Your task to perform on an android device: Open the phone app and click the voicemail tab. Image 0: 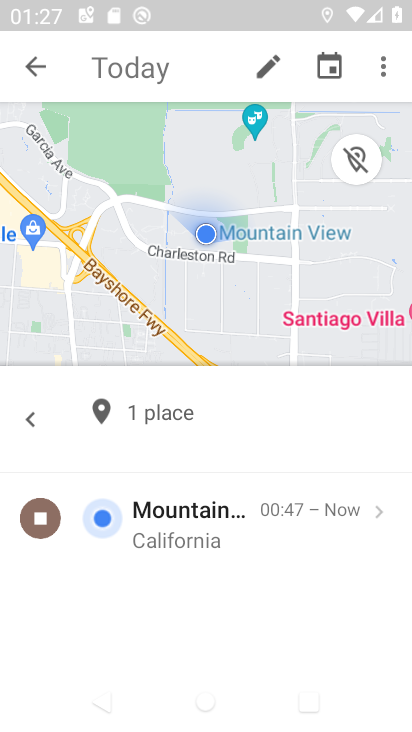
Step 0: press home button
Your task to perform on an android device: Open the phone app and click the voicemail tab. Image 1: 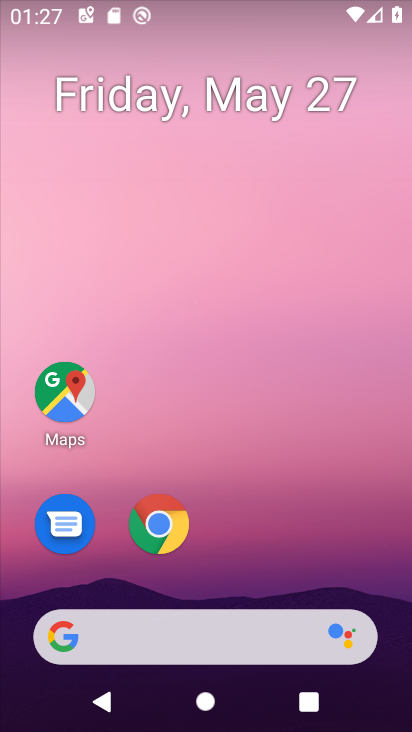
Step 1: drag from (240, 510) to (274, 0)
Your task to perform on an android device: Open the phone app and click the voicemail tab. Image 2: 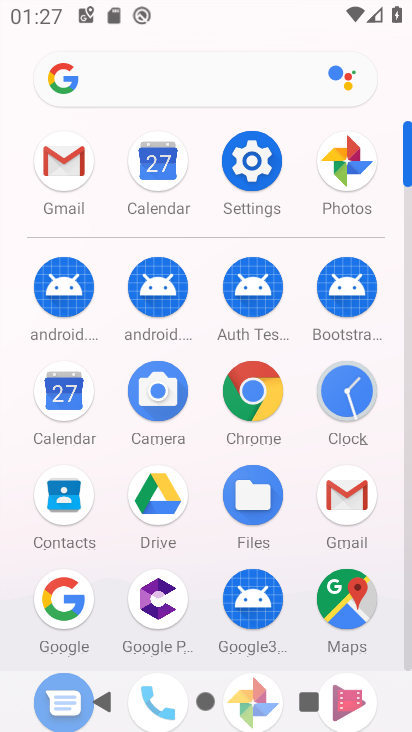
Step 2: drag from (199, 519) to (204, 295)
Your task to perform on an android device: Open the phone app and click the voicemail tab. Image 3: 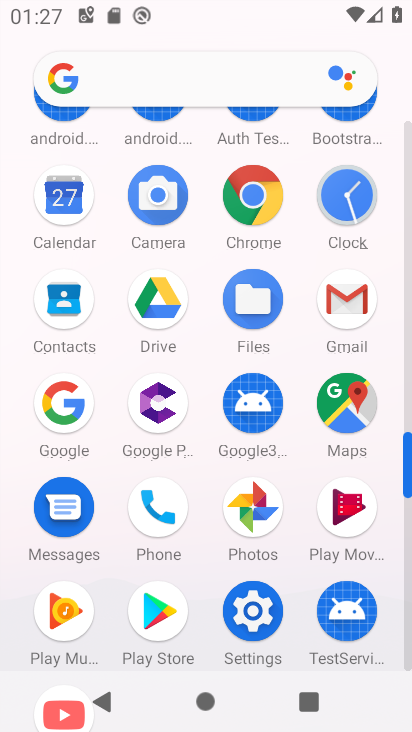
Step 3: click (160, 509)
Your task to perform on an android device: Open the phone app and click the voicemail tab. Image 4: 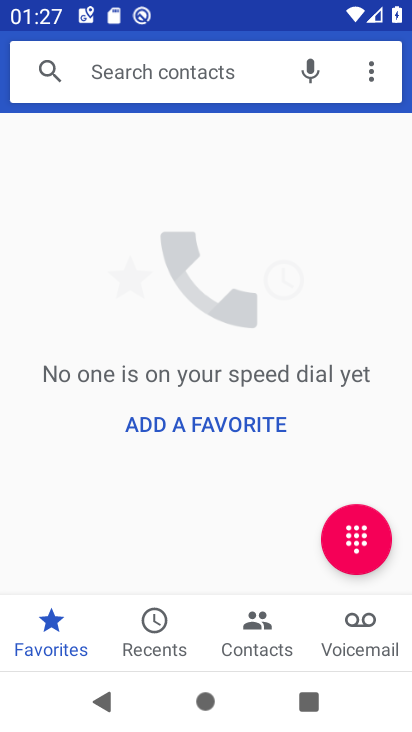
Step 4: click (350, 619)
Your task to perform on an android device: Open the phone app and click the voicemail tab. Image 5: 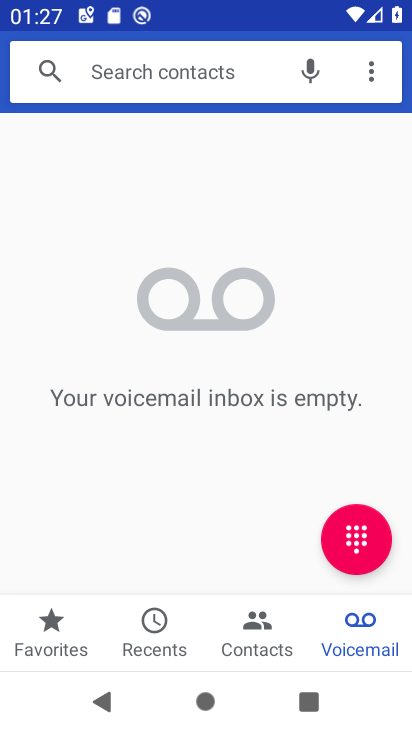
Step 5: task complete